Your task to perform on an android device: Search for Mexican restaurants on Maps Image 0: 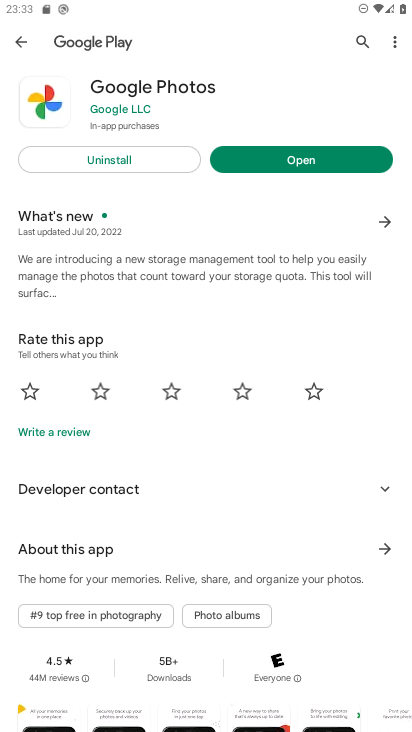
Step 0: press home button
Your task to perform on an android device: Search for Mexican restaurants on Maps Image 1: 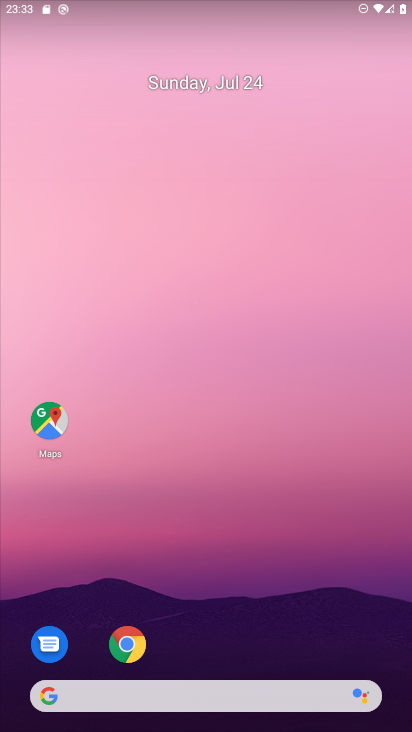
Step 1: click (52, 421)
Your task to perform on an android device: Search for Mexican restaurants on Maps Image 2: 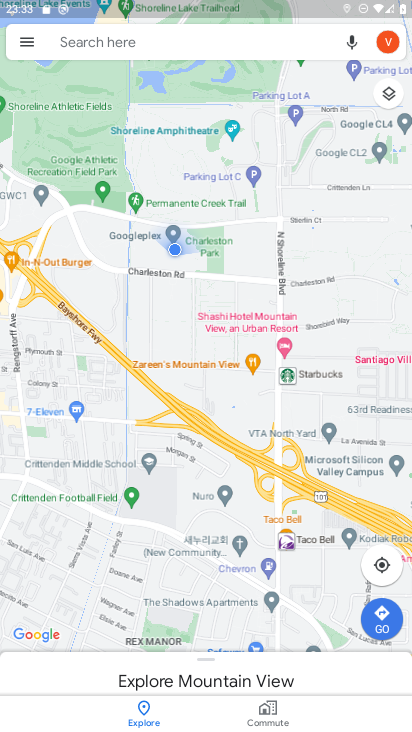
Step 2: click (94, 41)
Your task to perform on an android device: Search for Mexican restaurants on Maps Image 3: 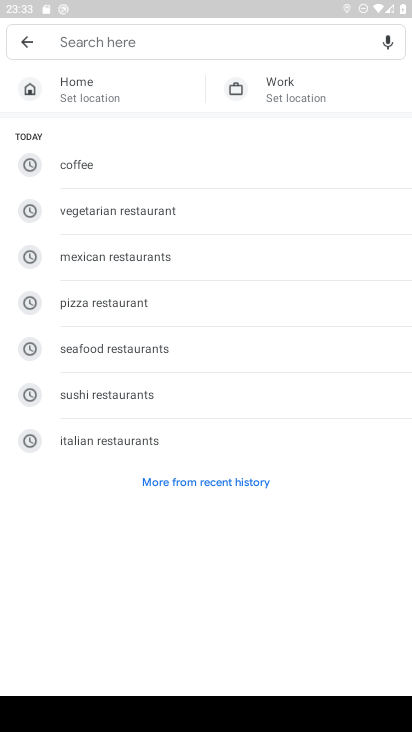
Step 3: type "mexican restaurants"
Your task to perform on an android device: Search for Mexican restaurants on Maps Image 4: 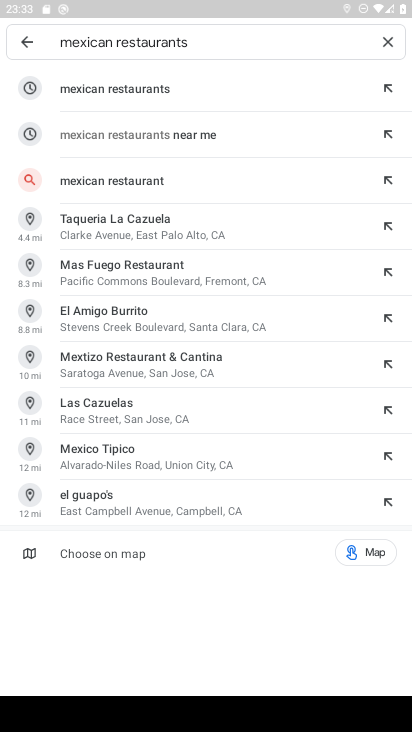
Step 4: click (122, 91)
Your task to perform on an android device: Search for Mexican restaurants on Maps Image 5: 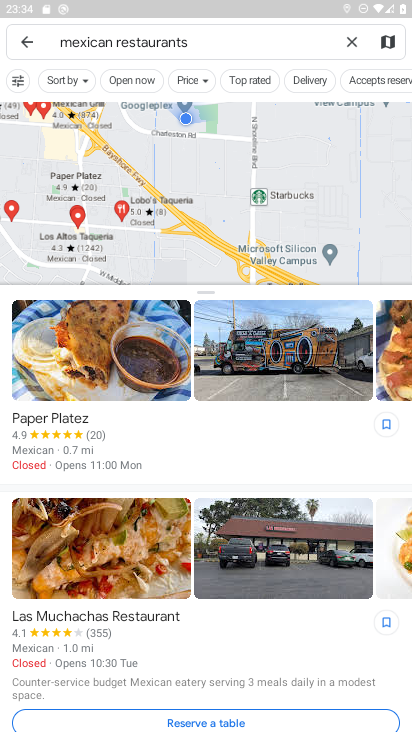
Step 5: drag from (191, 601) to (205, 204)
Your task to perform on an android device: Search for Mexican restaurants on Maps Image 6: 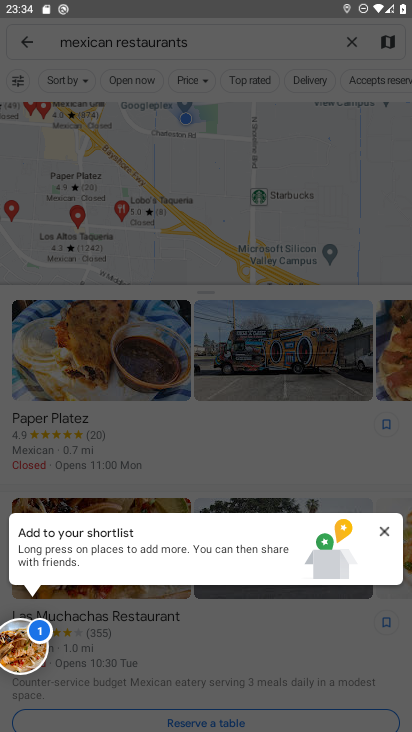
Step 6: click (384, 527)
Your task to perform on an android device: Search for Mexican restaurants on Maps Image 7: 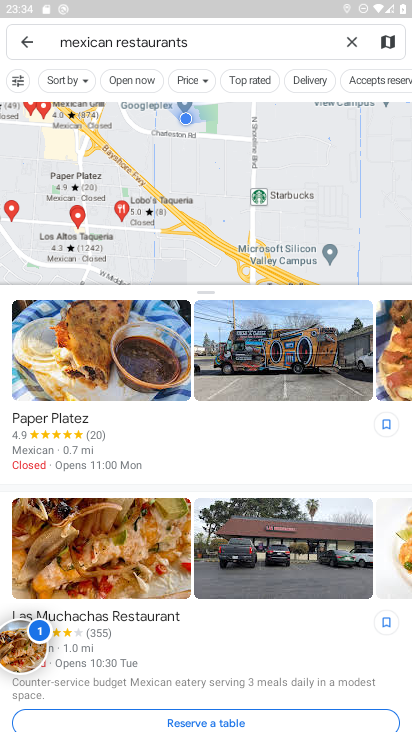
Step 7: task complete